Your task to perform on an android device: Is it going to rain today? Image 0: 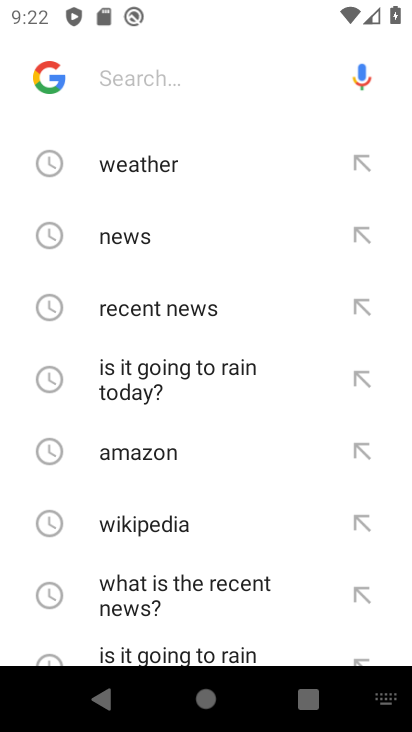
Step 0: click (126, 385)
Your task to perform on an android device: Is it going to rain today? Image 1: 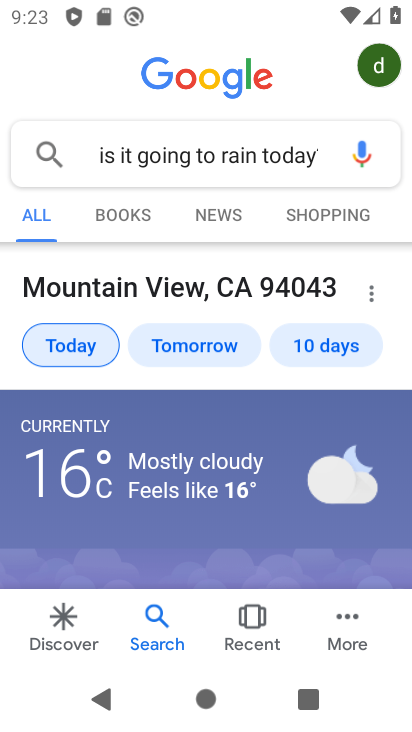
Step 1: task complete